Your task to perform on an android device: Open Chrome and go to settings Image 0: 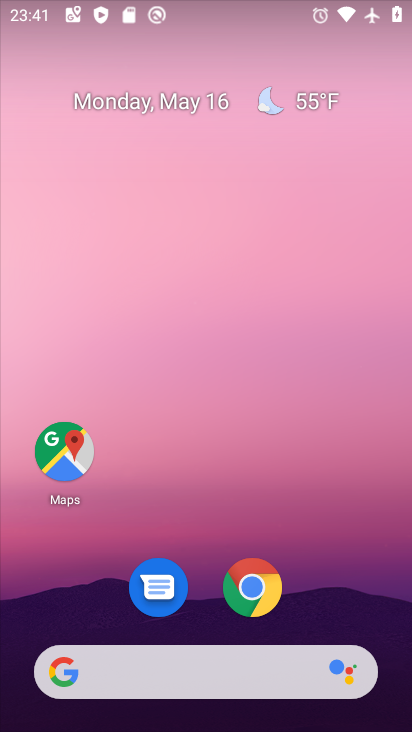
Step 0: drag from (295, 555) to (259, 17)
Your task to perform on an android device: Open Chrome and go to settings Image 1: 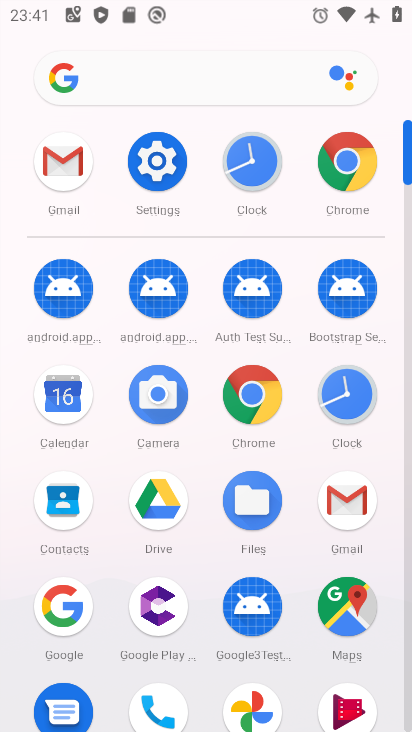
Step 1: drag from (13, 545) to (31, 270)
Your task to perform on an android device: Open Chrome and go to settings Image 2: 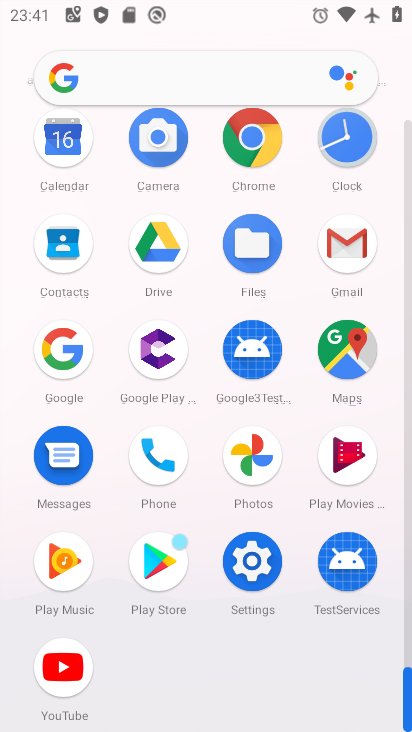
Step 2: click (253, 132)
Your task to perform on an android device: Open Chrome and go to settings Image 3: 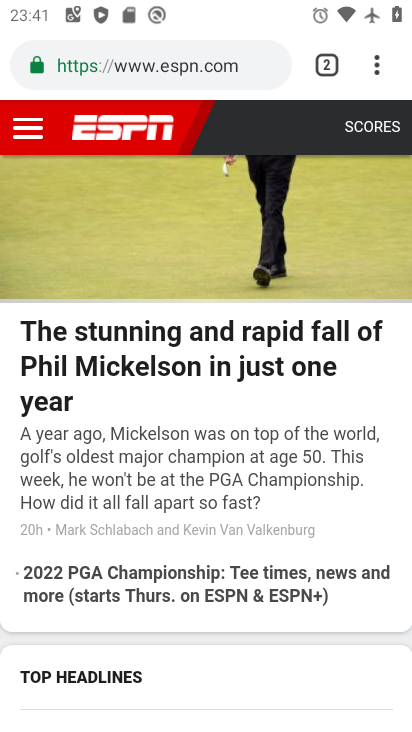
Step 3: task complete